Your task to perform on an android device: turn on bluetooth scan Image 0: 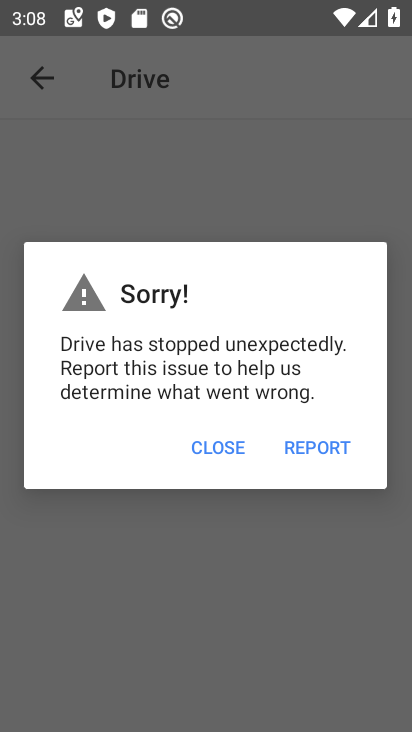
Step 0: press home button
Your task to perform on an android device: turn on bluetooth scan Image 1: 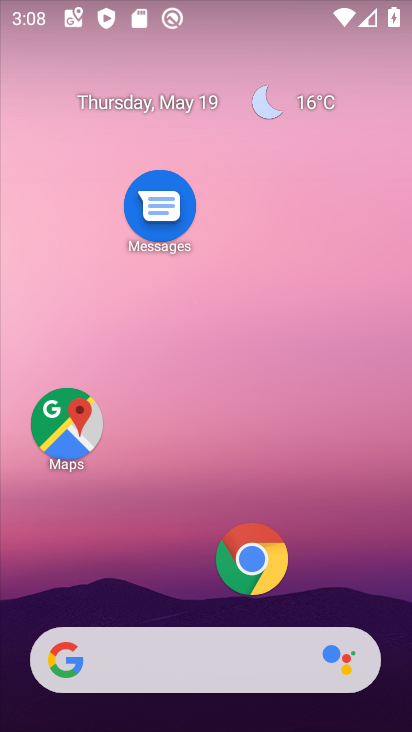
Step 1: drag from (176, 607) to (221, 204)
Your task to perform on an android device: turn on bluetooth scan Image 2: 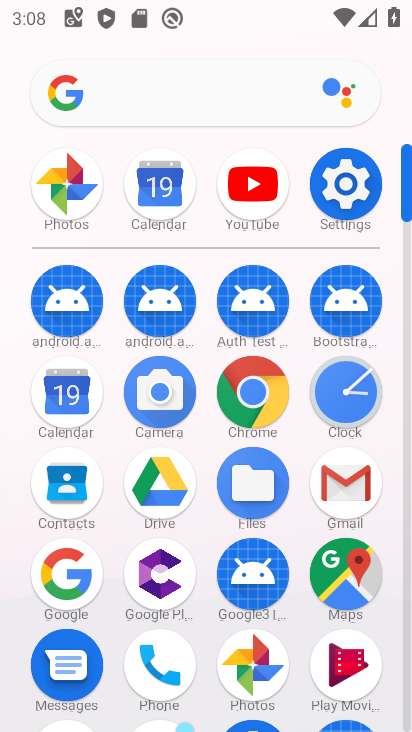
Step 2: click (357, 179)
Your task to perform on an android device: turn on bluetooth scan Image 3: 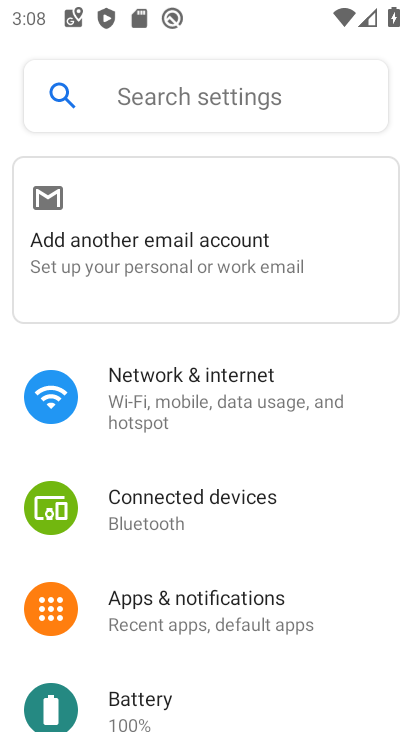
Step 3: drag from (222, 659) to (260, 391)
Your task to perform on an android device: turn on bluetooth scan Image 4: 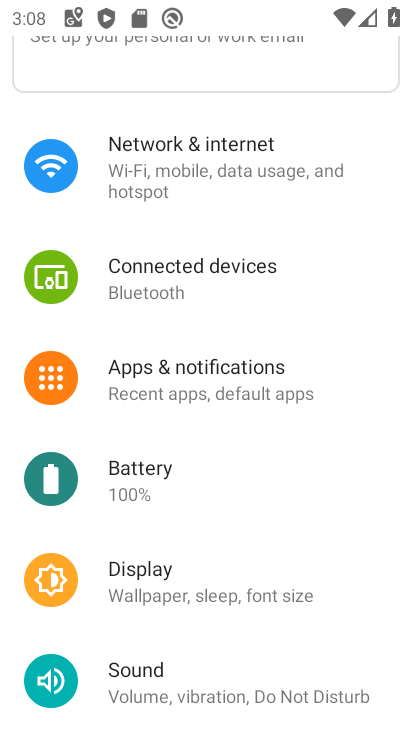
Step 4: drag from (250, 632) to (262, 370)
Your task to perform on an android device: turn on bluetooth scan Image 5: 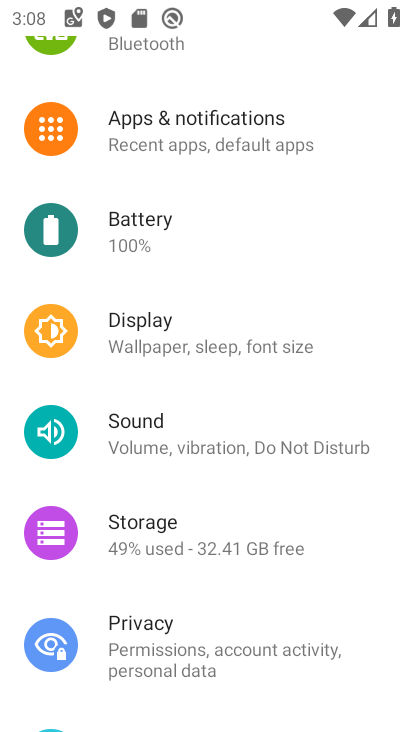
Step 5: drag from (258, 630) to (278, 411)
Your task to perform on an android device: turn on bluetooth scan Image 6: 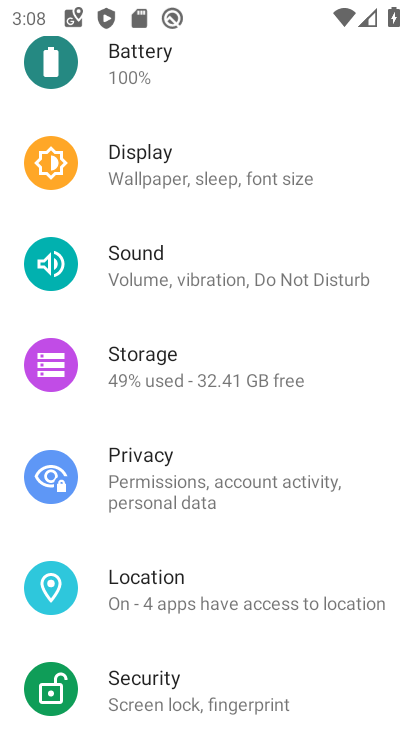
Step 6: click (216, 603)
Your task to perform on an android device: turn on bluetooth scan Image 7: 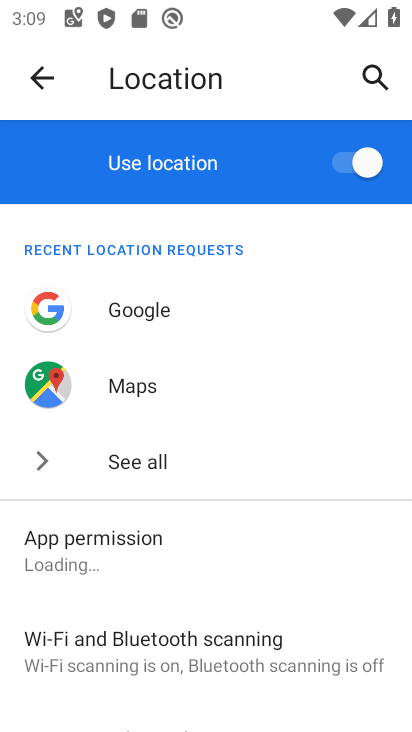
Step 7: drag from (205, 586) to (234, 354)
Your task to perform on an android device: turn on bluetooth scan Image 8: 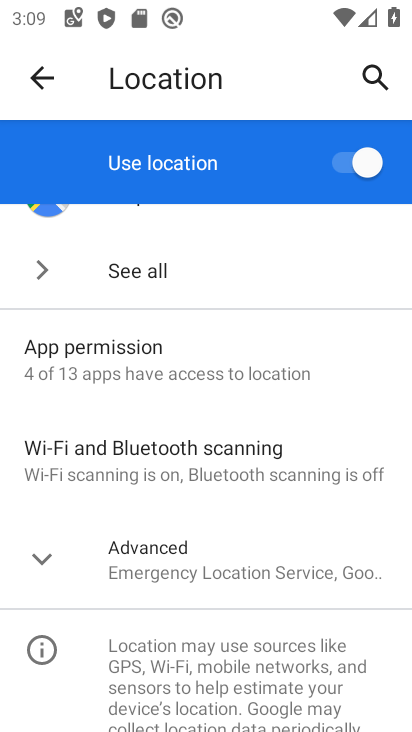
Step 8: click (217, 476)
Your task to perform on an android device: turn on bluetooth scan Image 9: 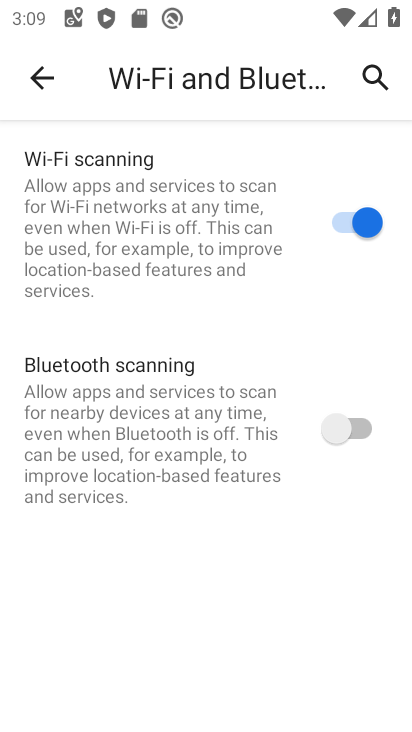
Step 9: click (365, 417)
Your task to perform on an android device: turn on bluetooth scan Image 10: 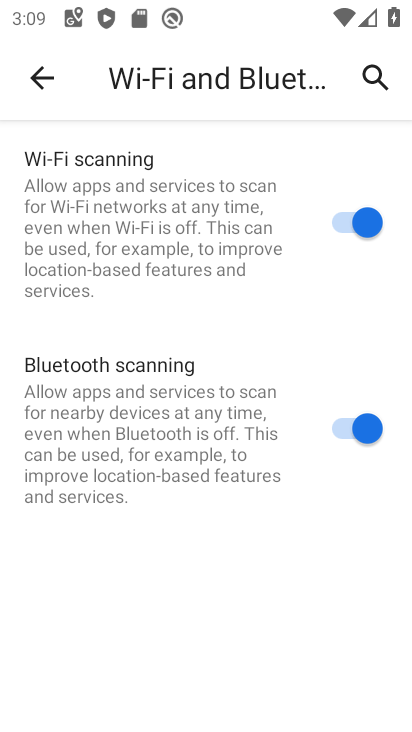
Step 10: task complete